Your task to perform on an android device: Open wifi settings Image 0: 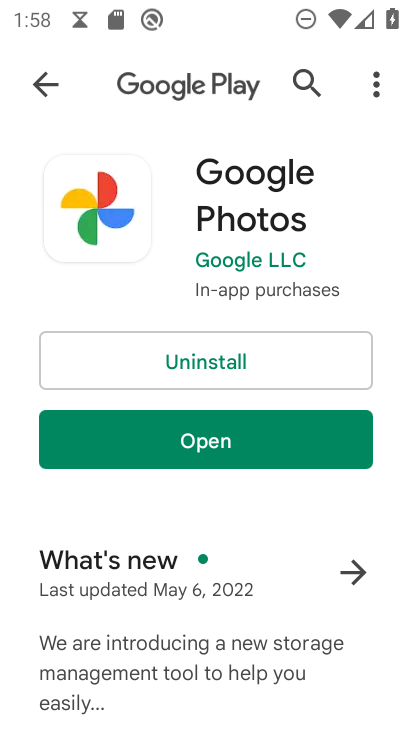
Step 0: press home button
Your task to perform on an android device: Open wifi settings Image 1: 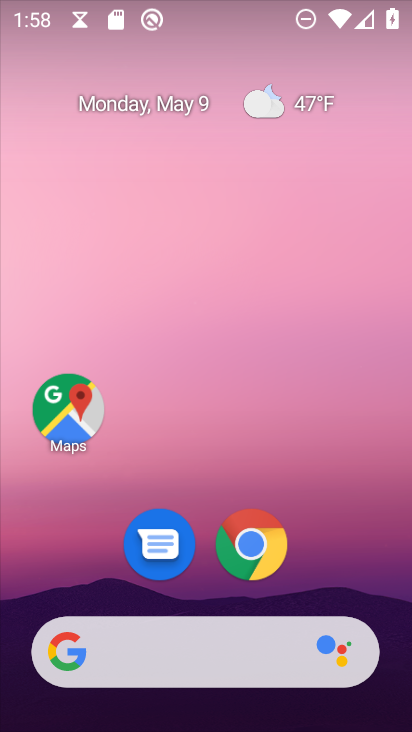
Step 1: drag from (395, 470) to (407, 131)
Your task to perform on an android device: Open wifi settings Image 2: 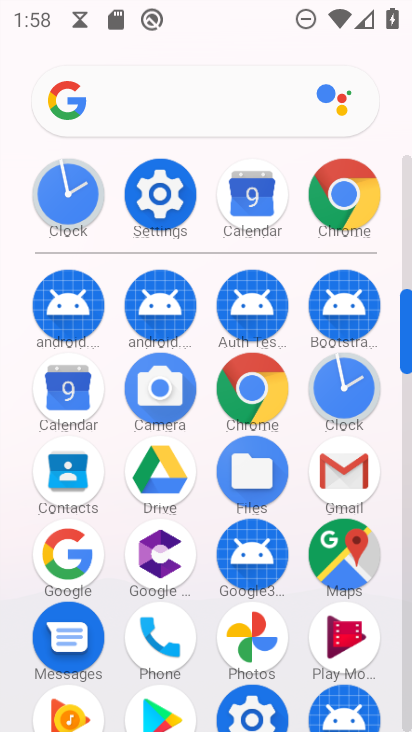
Step 2: click (153, 196)
Your task to perform on an android device: Open wifi settings Image 3: 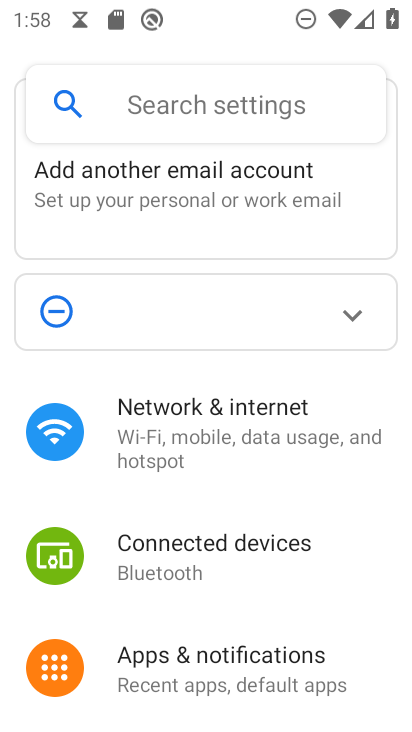
Step 3: click (147, 444)
Your task to perform on an android device: Open wifi settings Image 4: 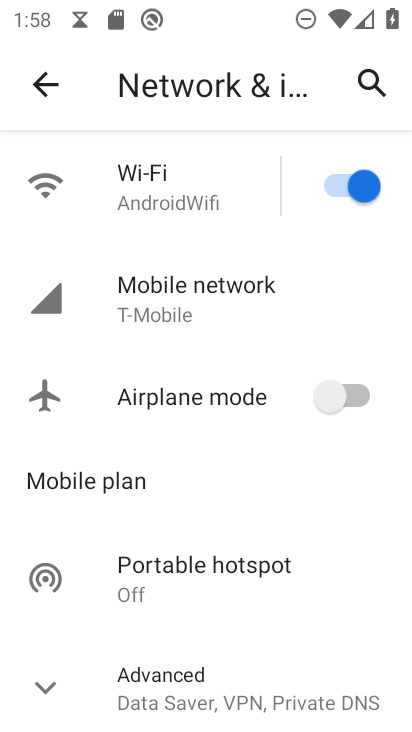
Step 4: click (203, 216)
Your task to perform on an android device: Open wifi settings Image 5: 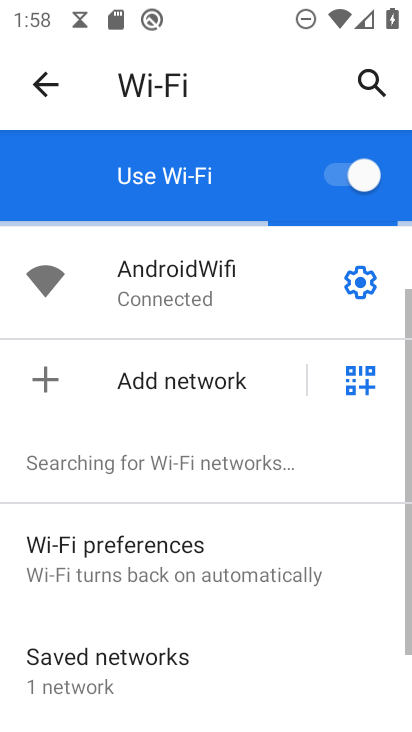
Step 5: task complete